Your task to perform on an android device: add a label to a message in the gmail app Image 0: 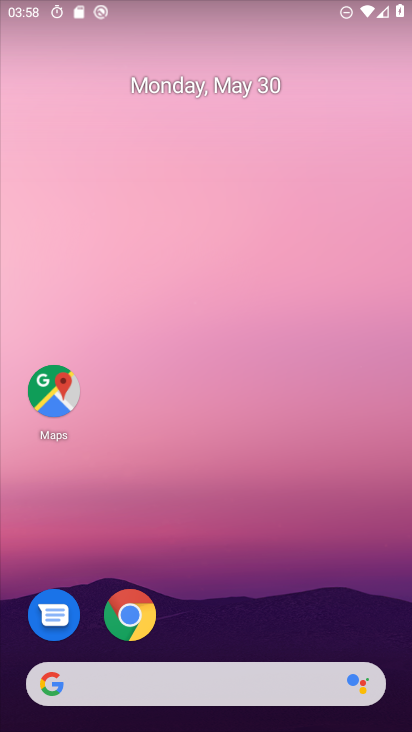
Step 0: drag from (287, 588) to (219, 89)
Your task to perform on an android device: add a label to a message in the gmail app Image 1: 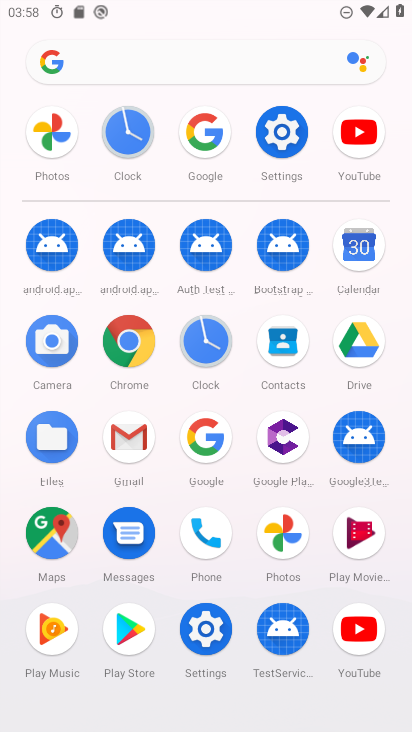
Step 1: click (127, 432)
Your task to perform on an android device: add a label to a message in the gmail app Image 2: 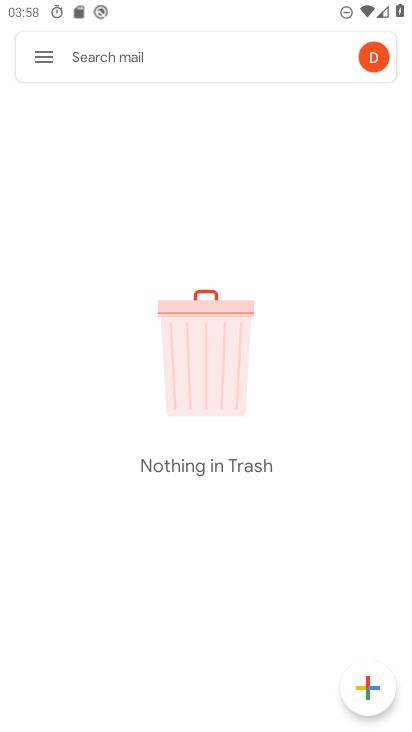
Step 2: click (41, 54)
Your task to perform on an android device: add a label to a message in the gmail app Image 3: 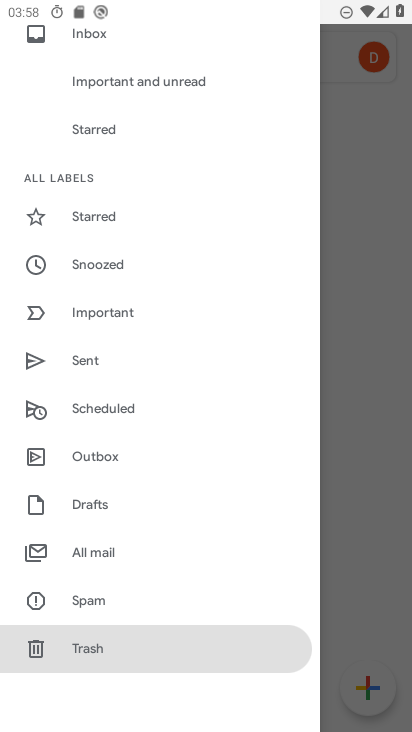
Step 3: click (108, 556)
Your task to perform on an android device: add a label to a message in the gmail app Image 4: 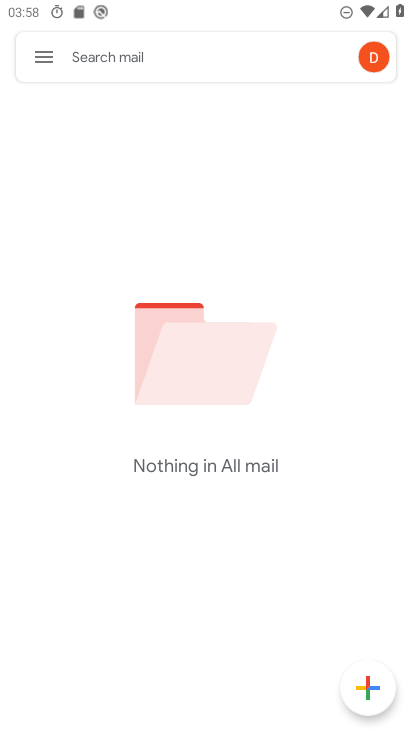
Step 4: click (39, 50)
Your task to perform on an android device: add a label to a message in the gmail app Image 5: 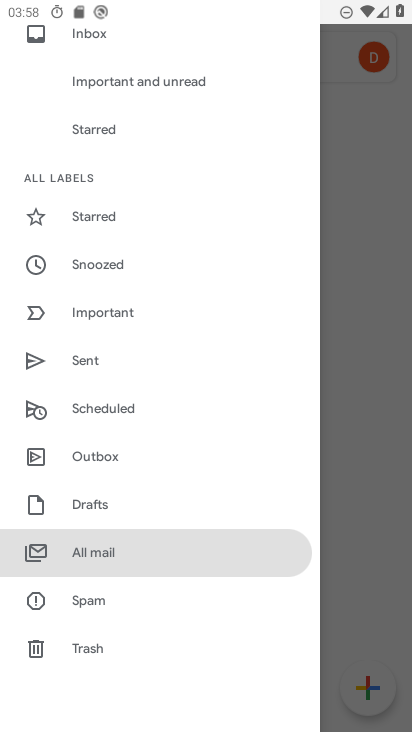
Step 5: click (127, 260)
Your task to perform on an android device: add a label to a message in the gmail app Image 6: 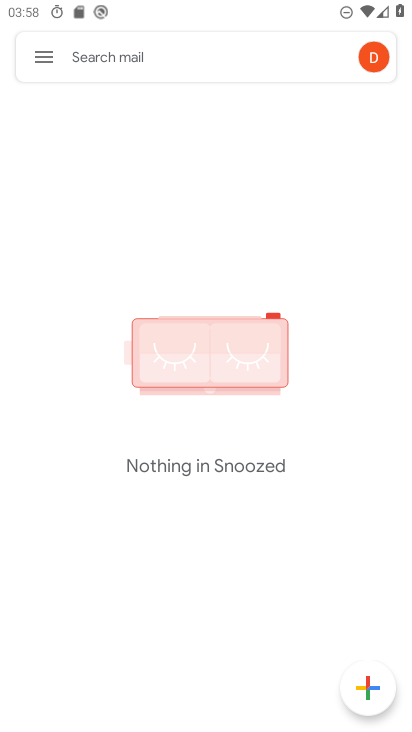
Step 6: task complete